Your task to perform on an android device: Open settings Image 0: 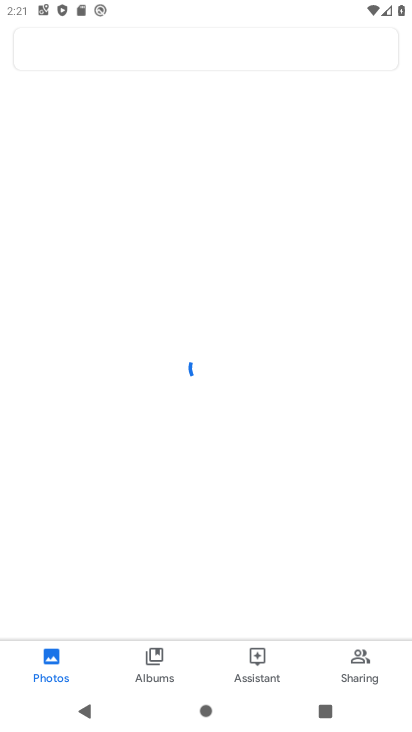
Step 0: press home button
Your task to perform on an android device: Open settings Image 1: 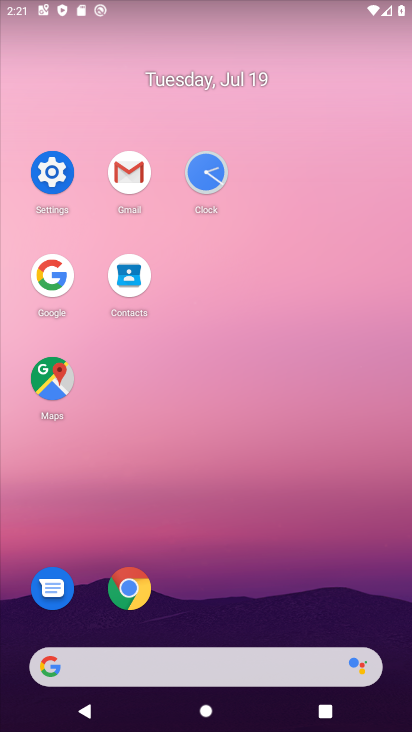
Step 1: click (56, 186)
Your task to perform on an android device: Open settings Image 2: 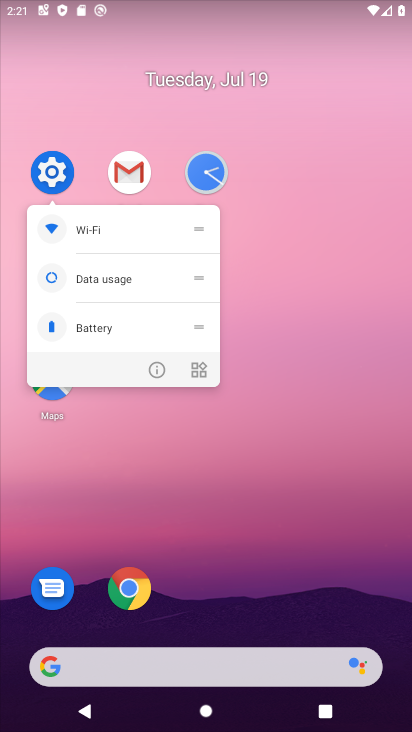
Step 2: click (45, 174)
Your task to perform on an android device: Open settings Image 3: 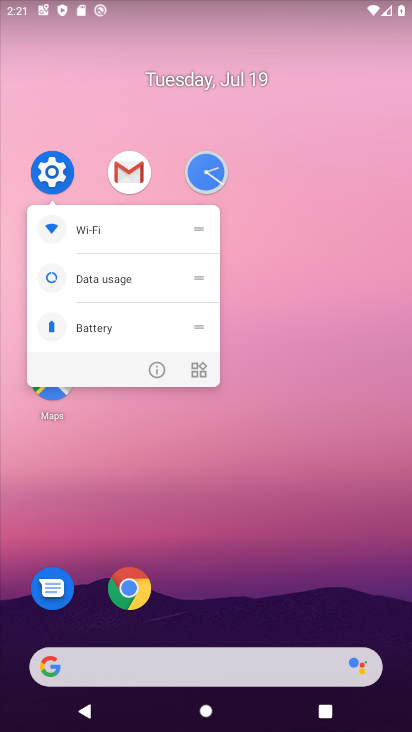
Step 3: click (45, 175)
Your task to perform on an android device: Open settings Image 4: 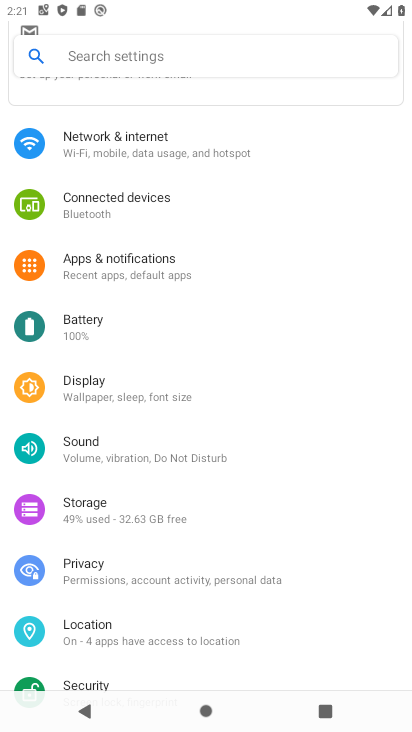
Step 4: task complete